Your task to perform on an android device: turn off wifi Image 0: 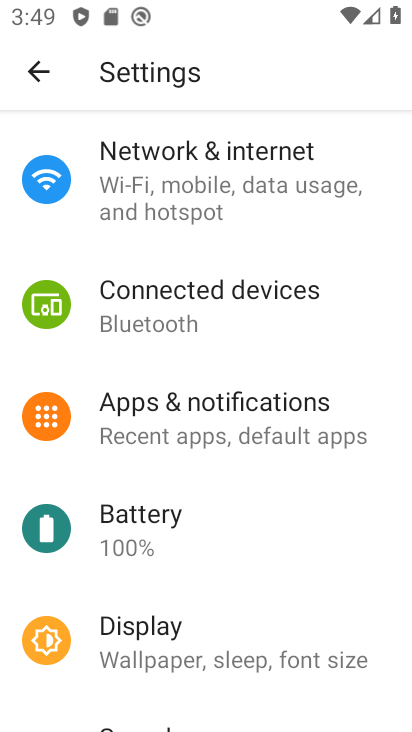
Step 0: drag from (370, 570) to (371, 323)
Your task to perform on an android device: turn off wifi Image 1: 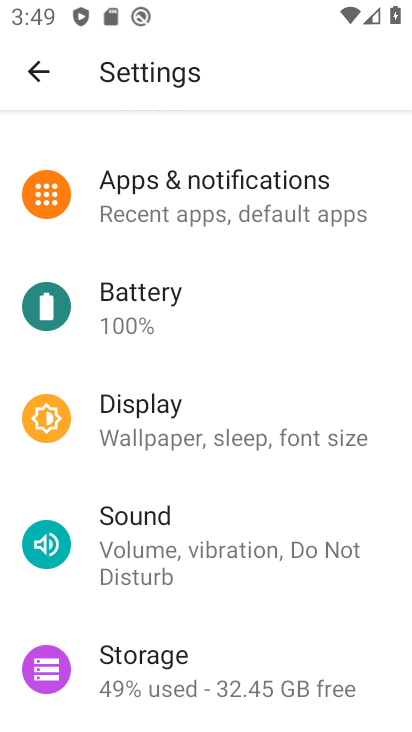
Step 1: drag from (376, 608) to (372, 356)
Your task to perform on an android device: turn off wifi Image 2: 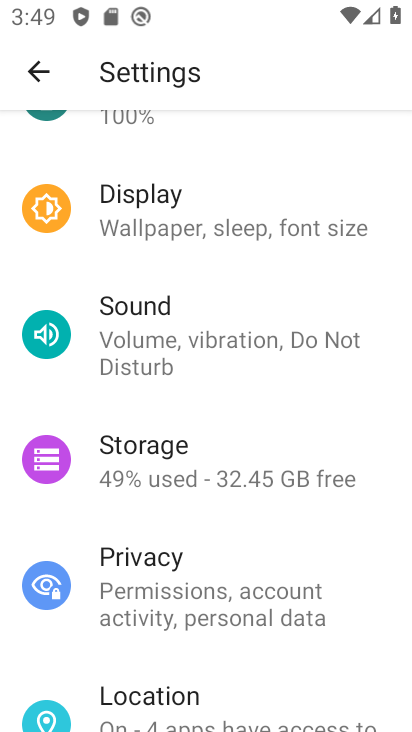
Step 2: drag from (373, 622) to (381, 416)
Your task to perform on an android device: turn off wifi Image 3: 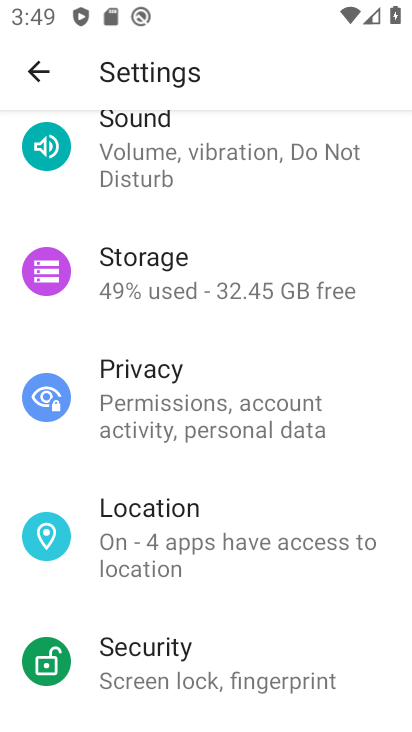
Step 3: drag from (360, 646) to (354, 453)
Your task to perform on an android device: turn off wifi Image 4: 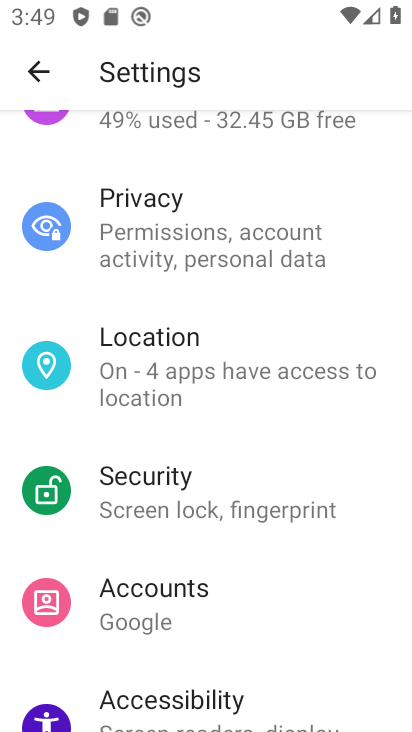
Step 4: drag from (357, 676) to (362, 453)
Your task to perform on an android device: turn off wifi Image 5: 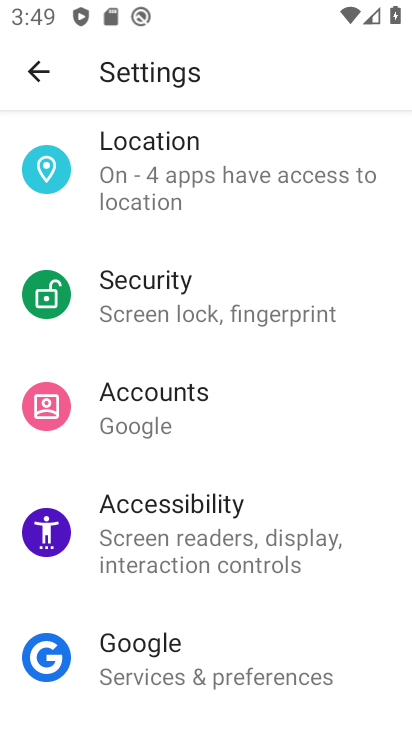
Step 5: drag from (366, 648) to (375, 305)
Your task to perform on an android device: turn off wifi Image 6: 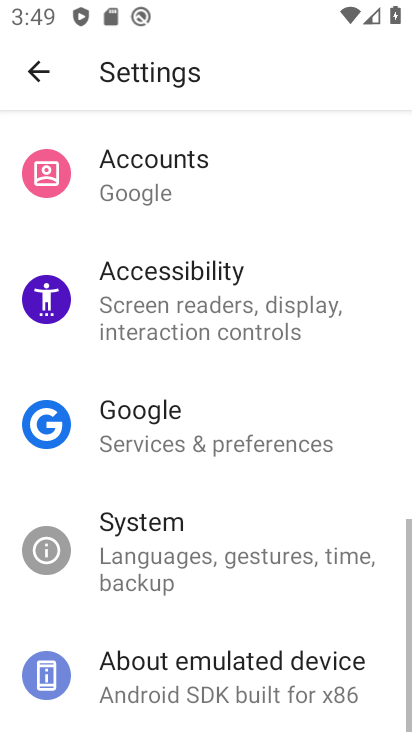
Step 6: drag from (377, 264) to (380, 426)
Your task to perform on an android device: turn off wifi Image 7: 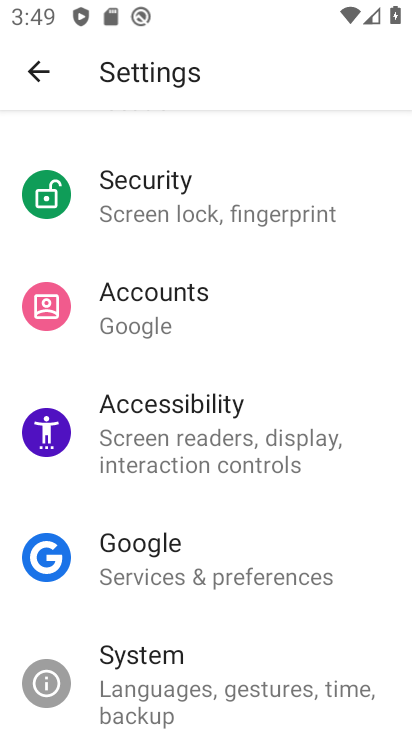
Step 7: drag from (372, 252) to (370, 423)
Your task to perform on an android device: turn off wifi Image 8: 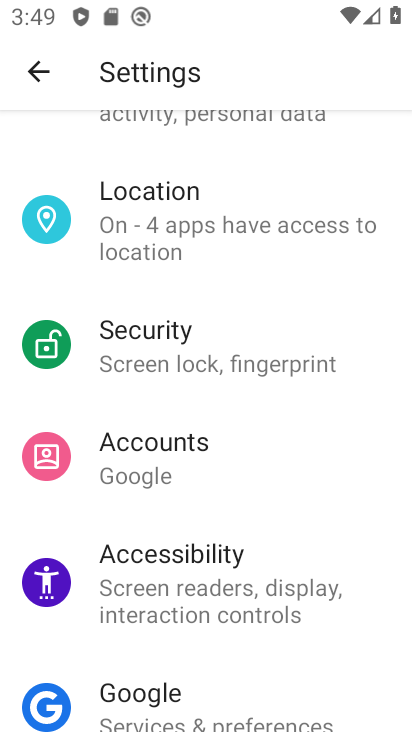
Step 8: drag from (368, 274) to (379, 451)
Your task to perform on an android device: turn off wifi Image 9: 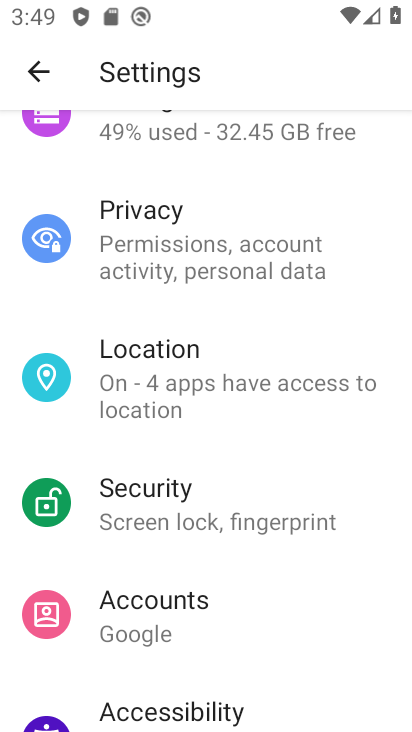
Step 9: drag from (386, 254) to (387, 455)
Your task to perform on an android device: turn off wifi Image 10: 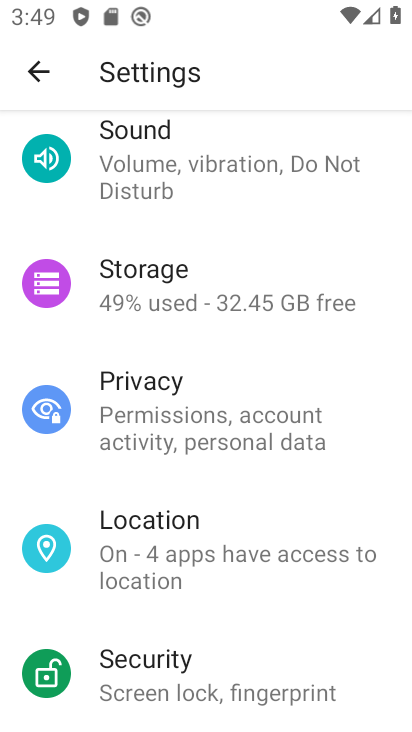
Step 10: drag from (373, 266) to (382, 442)
Your task to perform on an android device: turn off wifi Image 11: 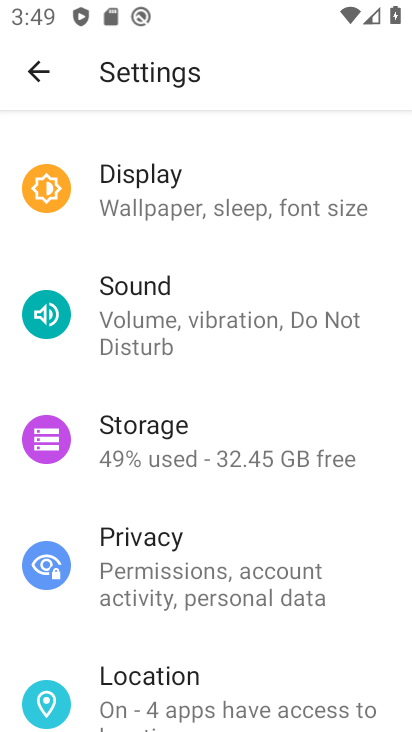
Step 11: drag from (385, 247) to (382, 461)
Your task to perform on an android device: turn off wifi Image 12: 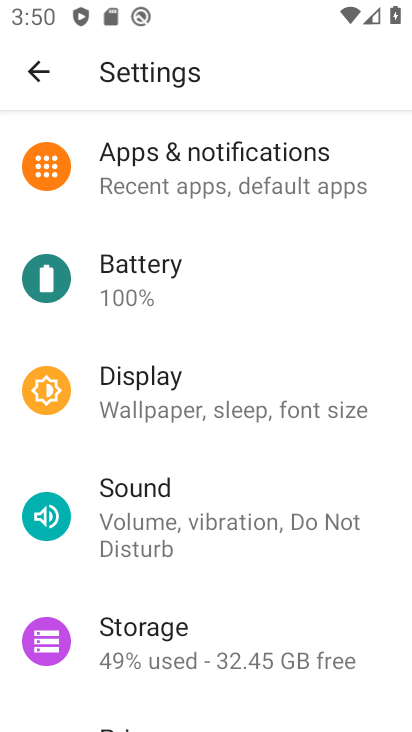
Step 12: drag from (360, 246) to (333, 427)
Your task to perform on an android device: turn off wifi Image 13: 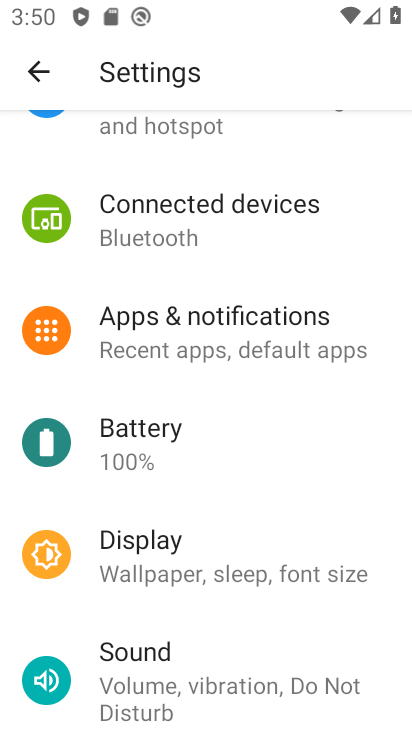
Step 13: drag from (340, 213) to (346, 423)
Your task to perform on an android device: turn off wifi Image 14: 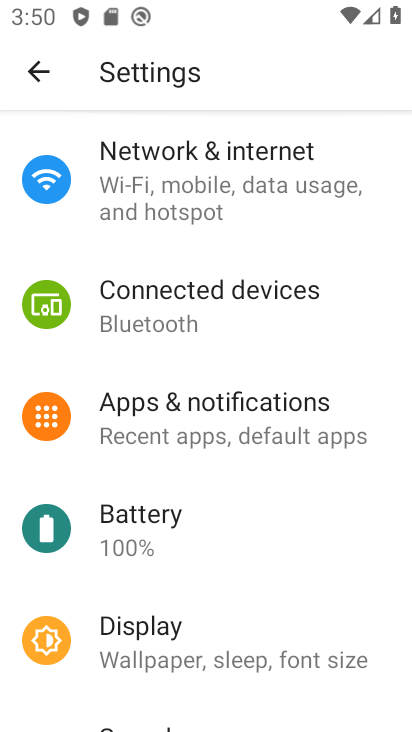
Step 14: click (287, 175)
Your task to perform on an android device: turn off wifi Image 15: 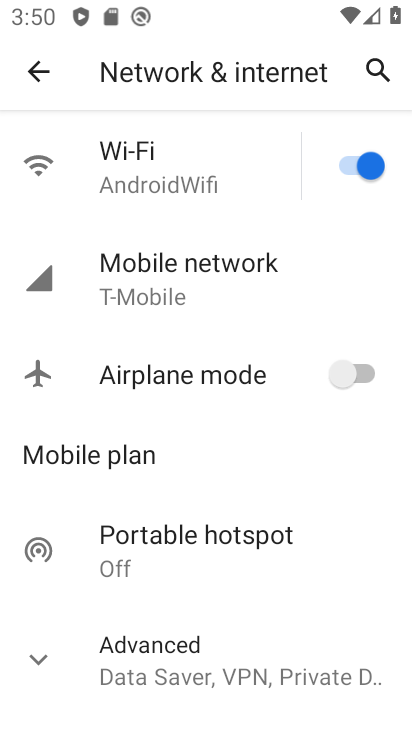
Step 15: click (350, 169)
Your task to perform on an android device: turn off wifi Image 16: 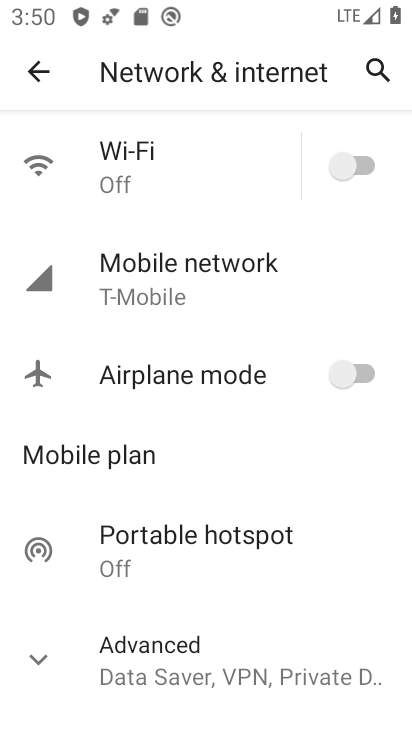
Step 16: task complete